Your task to perform on an android device: Open Google Chrome Image 0: 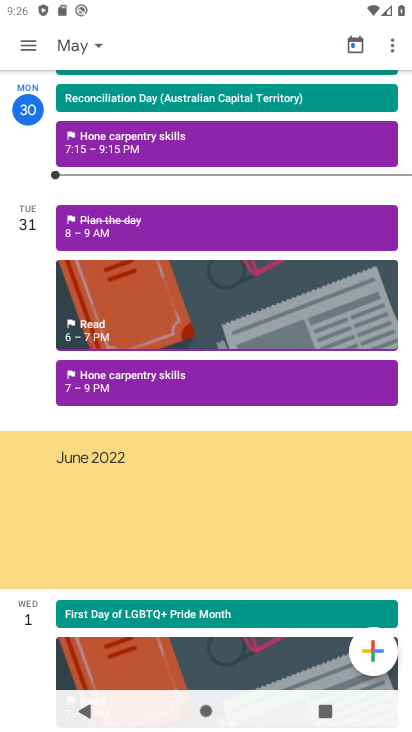
Step 0: press home button
Your task to perform on an android device: Open Google Chrome Image 1: 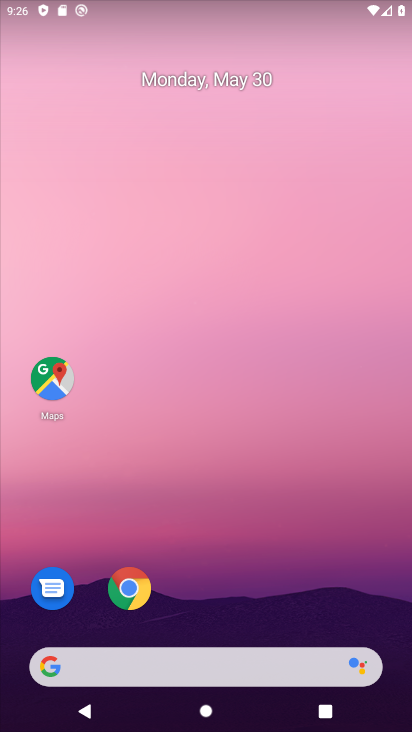
Step 1: click (136, 579)
Your task to perform on an android device: Open Google Chrome Image 2: 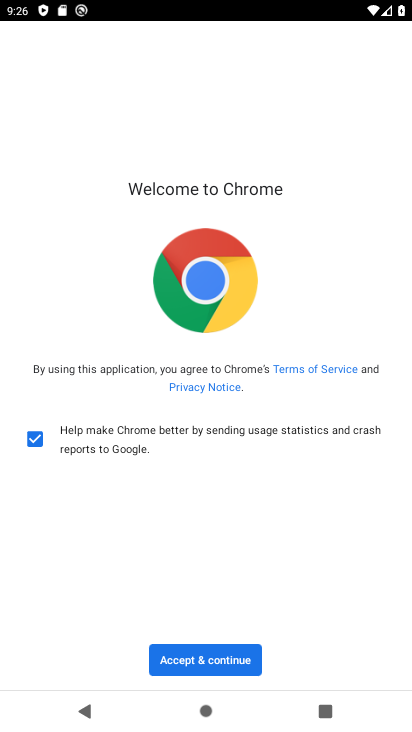
Step 2: click (231, 656)
Your task to perform on an android device: Open Google Chrome Image 3: 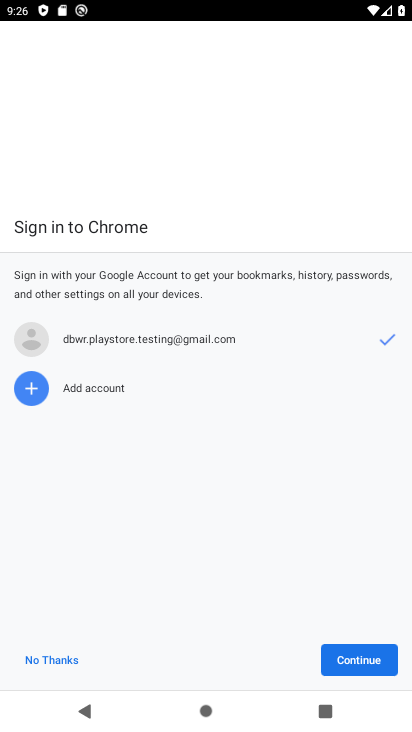
Step 3: click (351, 664)
Your task to perform on an android device: Open Google Chrome Image 4: 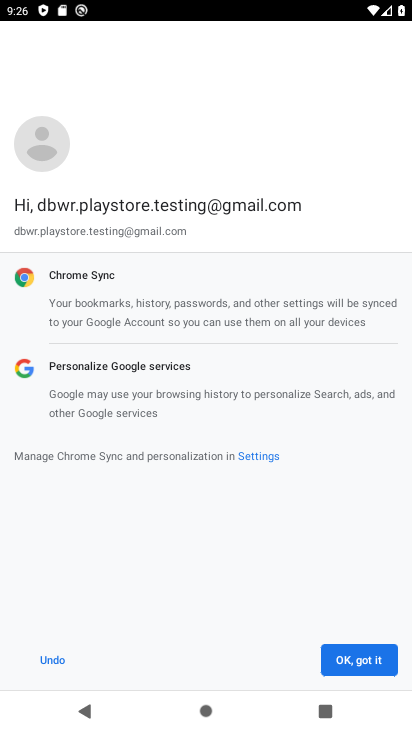
Step 4: click (357, 668)
Your task to perform on an android device: Open Google Chrome Image 5: 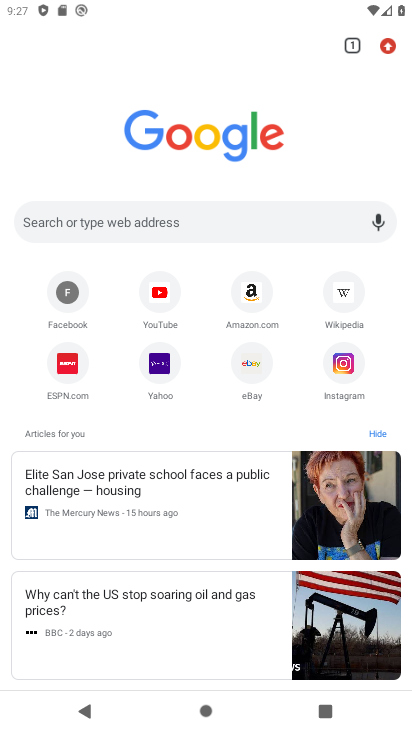
Step 5: task complete